Your task to perform on an android device: toggle location history Image 0: 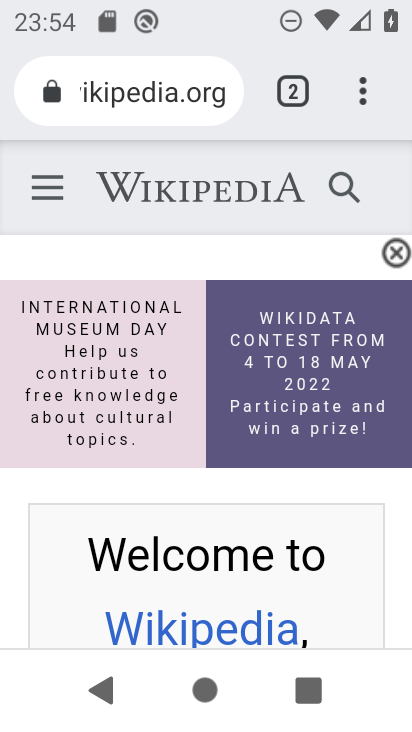
Step 0: press home button
Your task to perform on an android device: toggle location history Image 1: 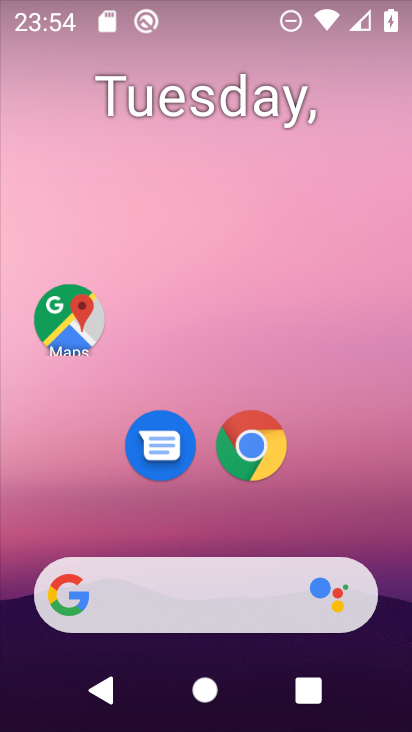
Step 1: drag from (300, 523) to (377, 111)
Your task to perform on an android device: toggle location history Image 2: 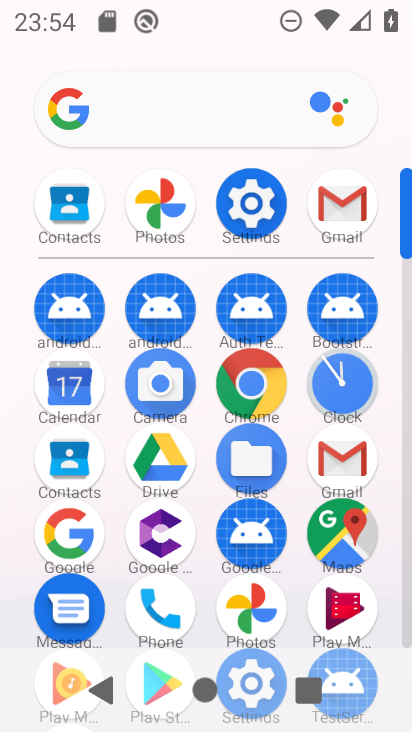
Step 2: click (257, 210)
Your task to perform on an android device: toggle location history Image 3: 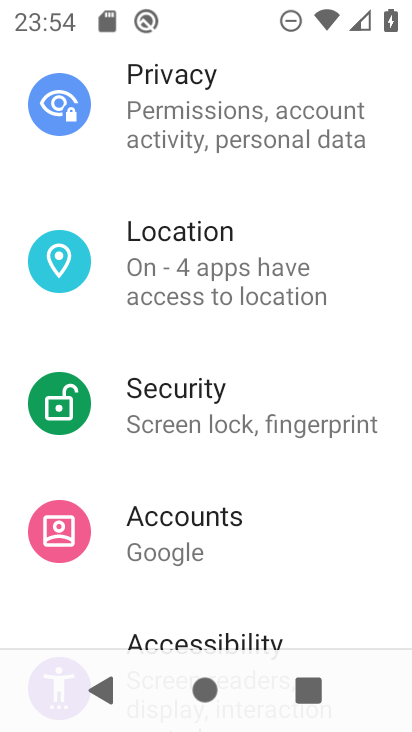
Step 3: click (206, 312)
Your task to perform on an android device: toggle location history Image 4: 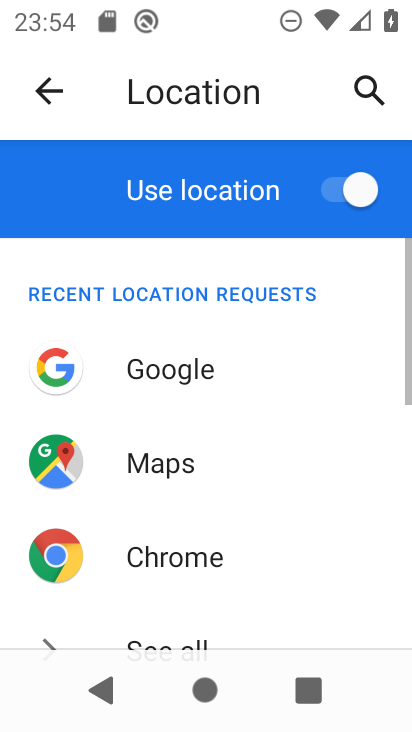
Step 4: drag from (141, 561) to (219, 141)
Your task to perform on an android device: toggle location history Image 5: 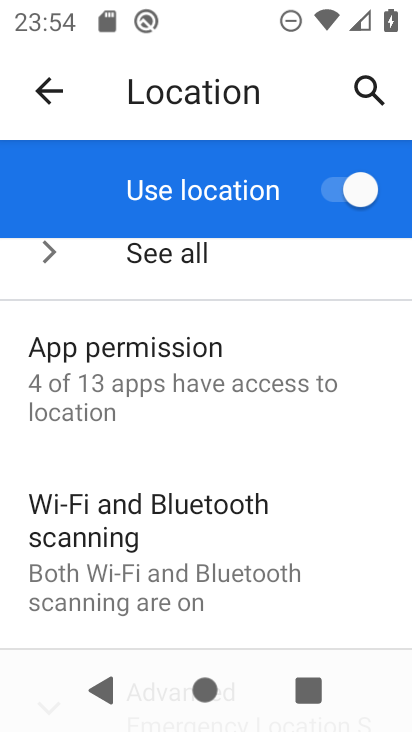
Step 5: drag from (121, 526) to (221, 144)
Your task to perform on an android device: toggle location history Image 6: 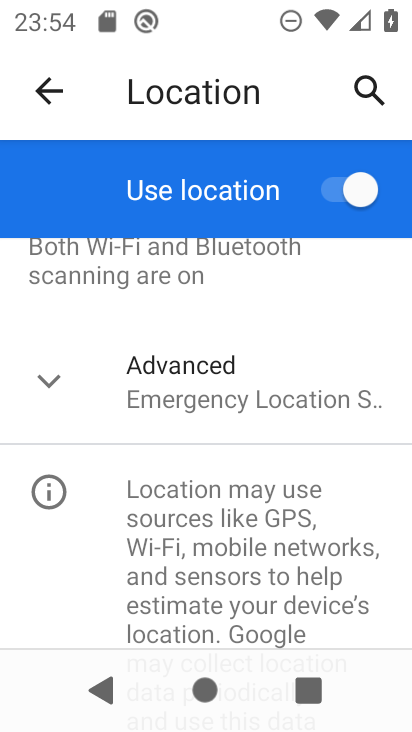
Step 6: click (174, 401)
Your task to perform on an android device: toggle location history Image 7: 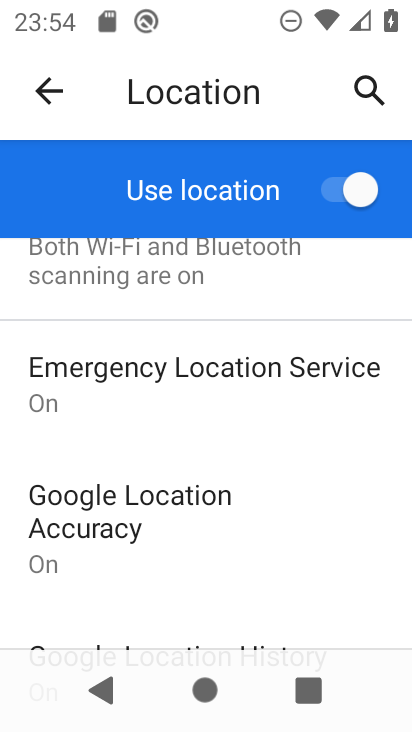
Step 7: drag from (161, 538) to (227, 226)
Your task to perform on an android device: toggle location history Image 8: 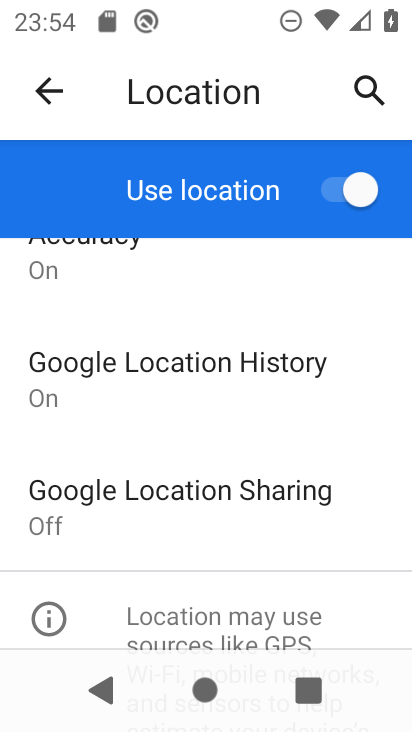
Step 8: click (215, 393)
Your task to perform on an android device: toggle location history Image 9: 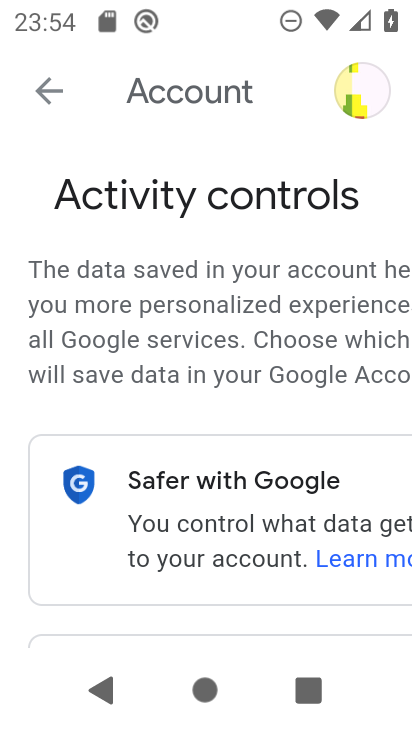
Step 9: drag from (220, 483) to (258, 117)
Your task to perform on an android device: toggle location history Image 10: 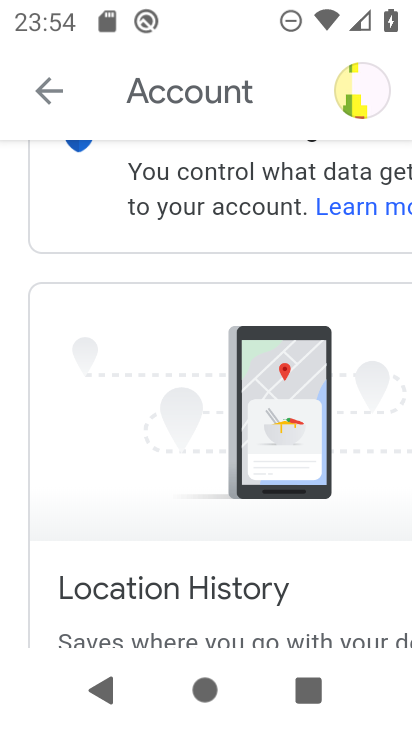
Step 10: drag from (230, 493) to (338, 231)
Your task to perform on an android device: toggle location history Image 11: 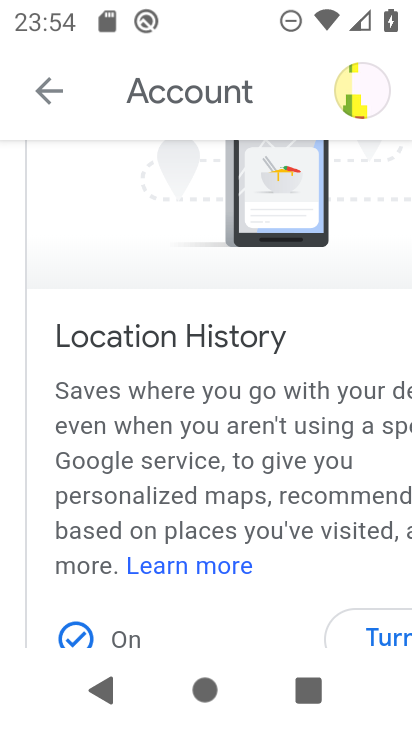
Step 11: drag from (277, 495) to (235, 226)
Your task to perform on an android device: toggle location history Image 12: 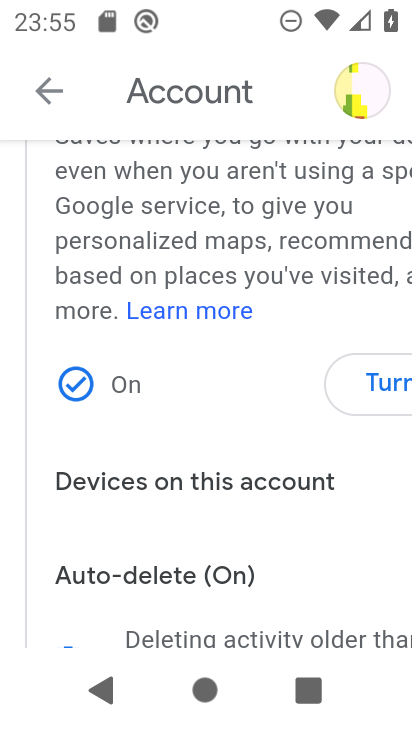
Step 12: click (386, 386)
Your task to perform on an android device: toggle location history Image 13: 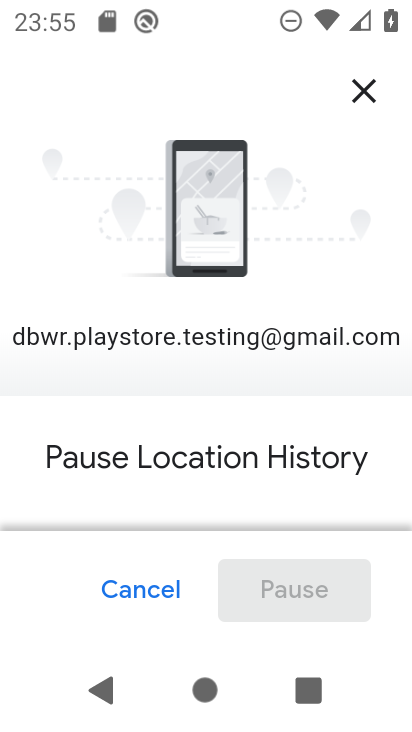
Step 13: drag from (264, 524) to (276, 213)
Your task to perform on an android device: toggle location history Image 14: 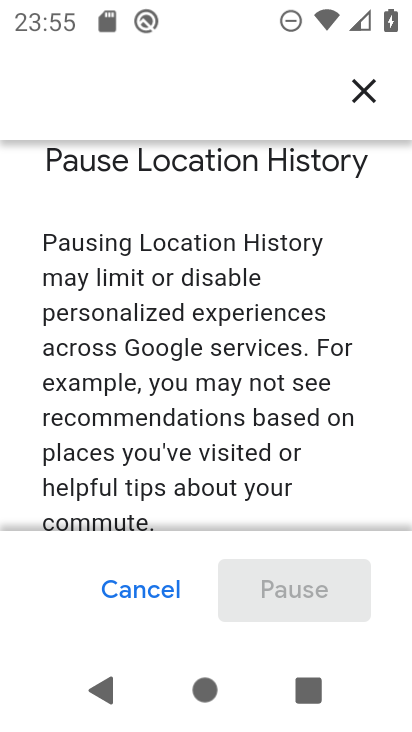
Step 14: drag from (307, 444) to (303, 141)
Your task to perform on an android device: toggle location history Image 15: 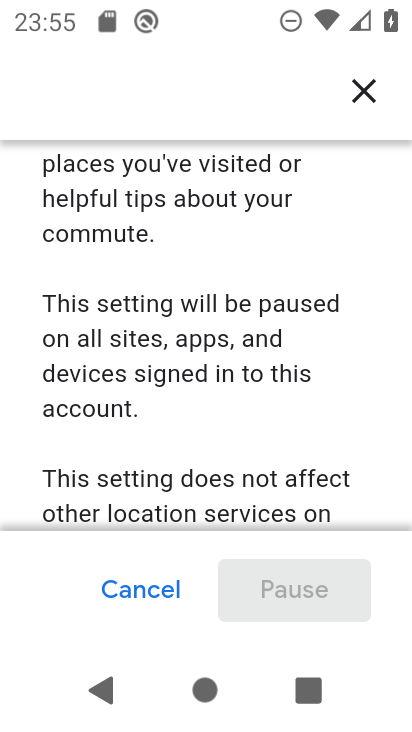
Step 15: drag from (258, 465) to (223, 127)
Your task to perform on an android device: toggle location history Image 16: 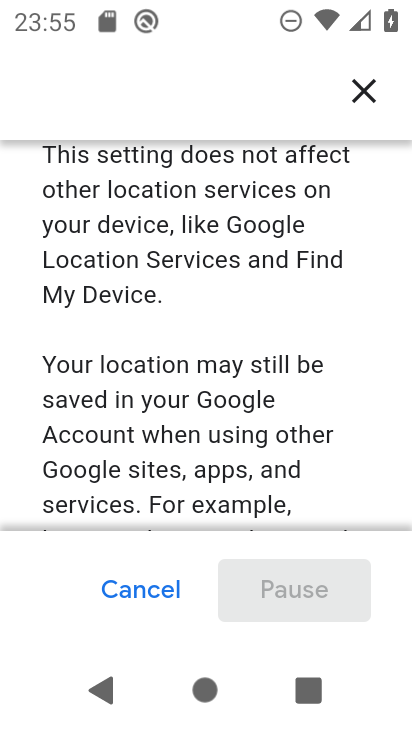
Step 16: drag from (207, 490) to (277, 152)
Your task to perform on an android device: toggle location history Image 17: 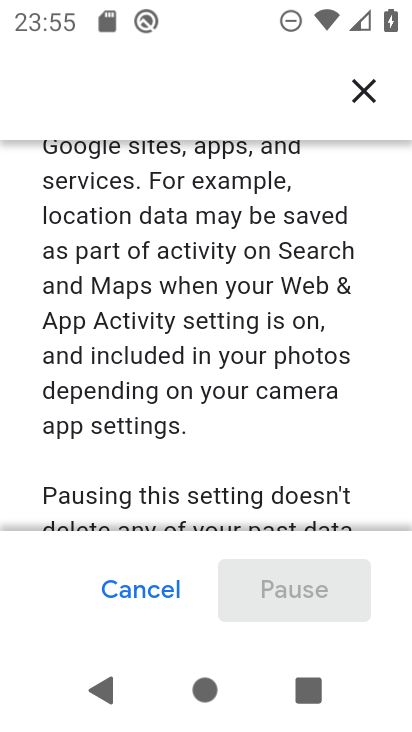
Step 17: drag from (237, 478) to (249, 243)
Your task to perform on an android device: toggle location history Image 18: 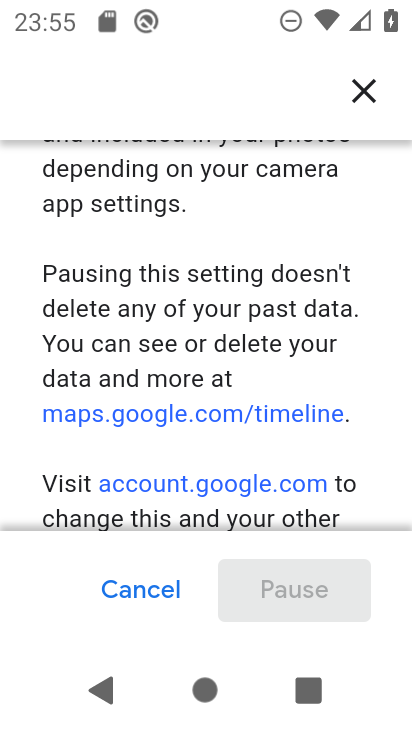
Step 18: click (284, 457)
Your task to perform on an android device: toggle location history Image 19: 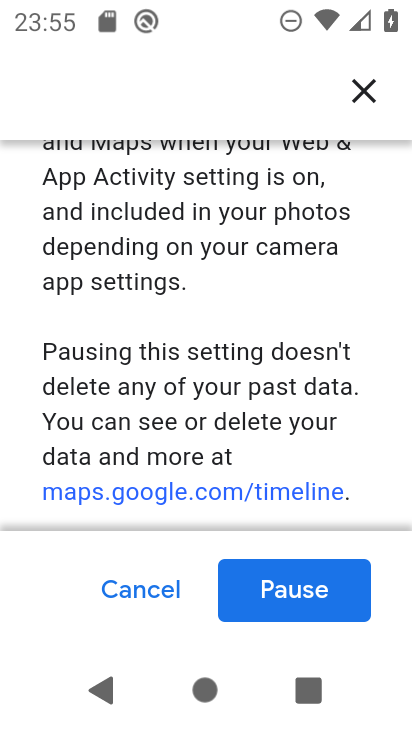
Step 19: click (267, 590)
Your task to perform on an android device: toggle location history Image 20: 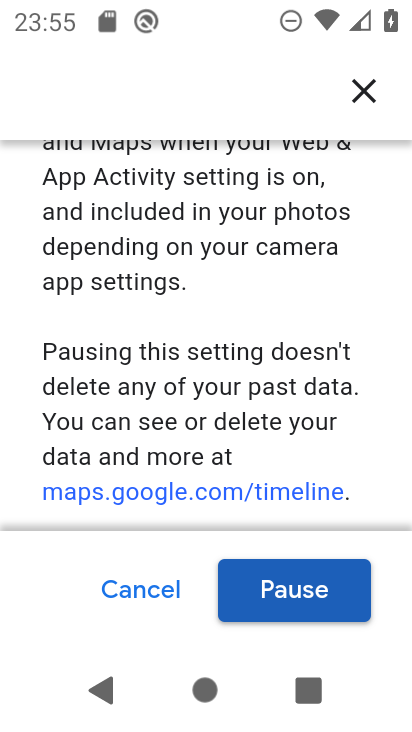
Step 20: click (267, 590)
Your task to perform on an android device: toggle location history Image 21: 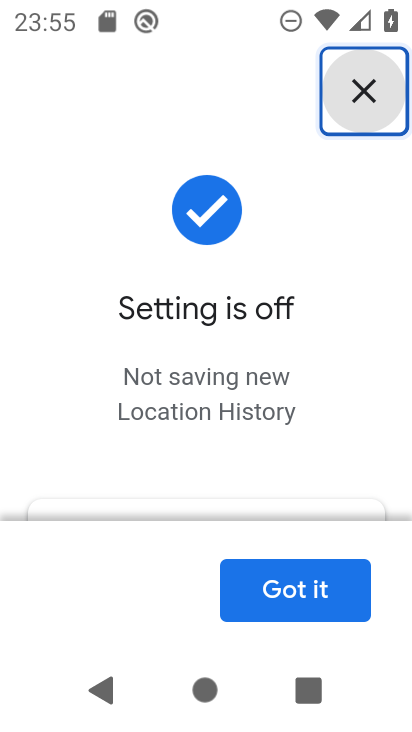
Step 21: click (272, 586)
Your task to perform on an android device: toggle location history Image 22: 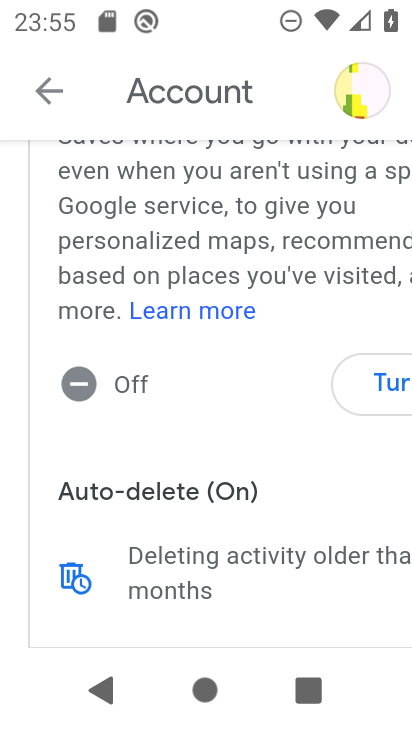
Step 22: task complete